Your task to perform on an android device: When is my next appointment? Image 0: 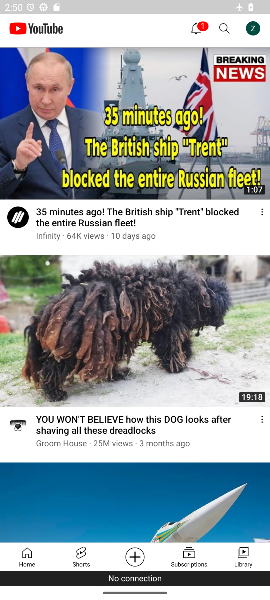
Step 0: press home button
Your task to perform on an android device: When is my next appointment? Image 1: 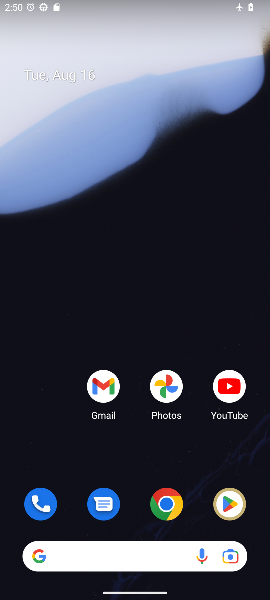
Step 1: drag from (137, 494) to (102, 62)
Your task to perform on an android device: When is my next appointment? Image 2: 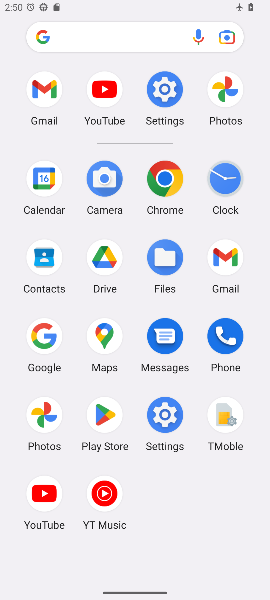
Step 2: click (35, 181)
Your task to perform on an android device: When is my next appointment? Image 3: 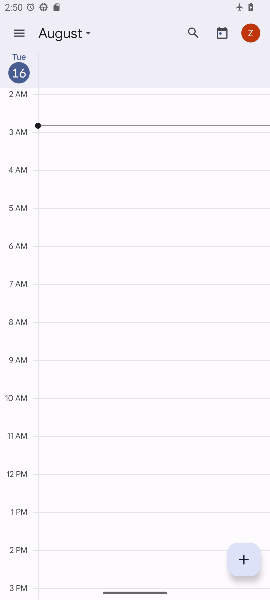
Step 3: task complete